Your task to perform on an android device: What's the weather? Image 0: 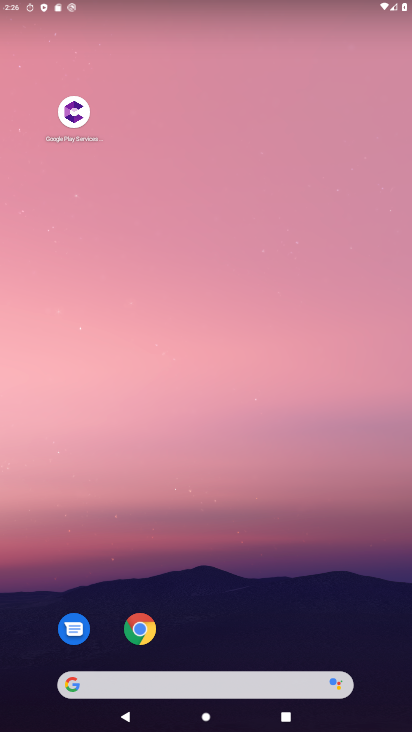
Step 0: drag from (238, 672) to (180, 0)
Your task to perform on an android device: What's the weather? Image 1: 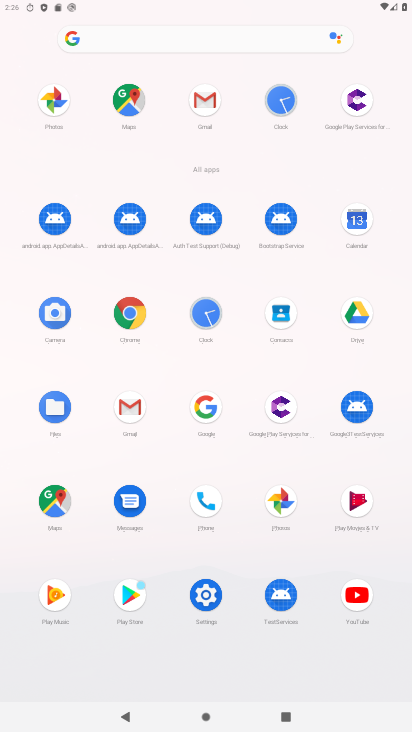
Step 1: click (144, 312)
Your task to perform on an android device: What's the weather? Image 2: 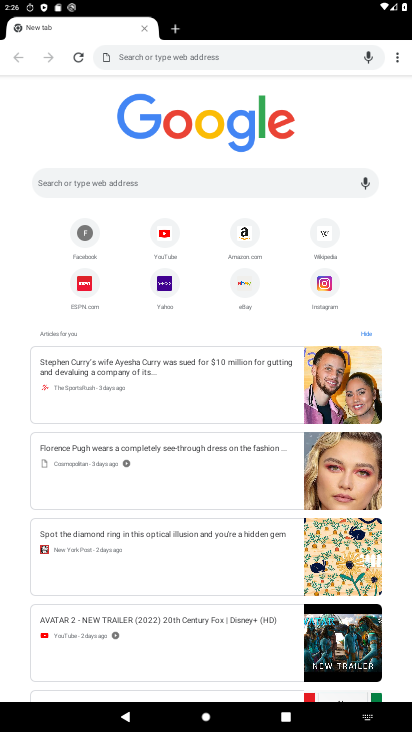
Step 2: type "whats the weather"
Your task to perform on an android device: What's the weather? Image 3: 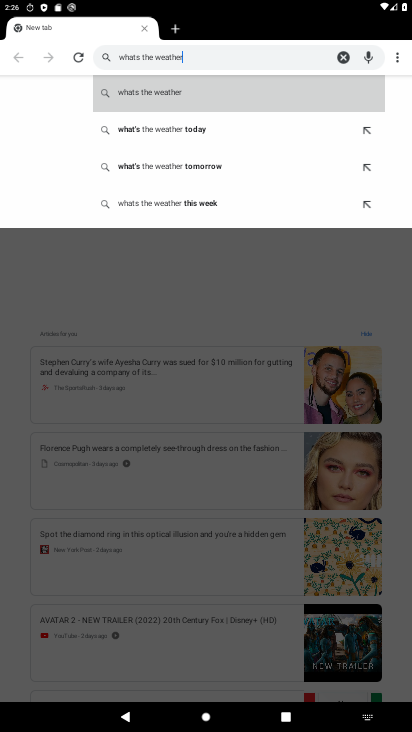
Step 3: click (329, 85)
Your task to perform on an android device: What's the weather? Image 4: 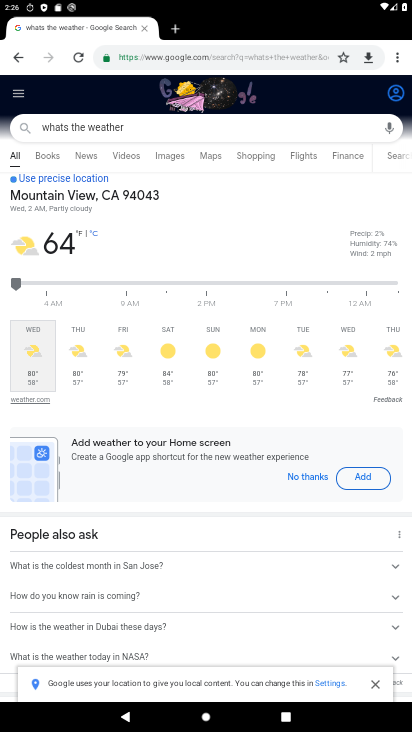
Step 4: task complete